Your task to perform on an android device: add a contact Image 0: 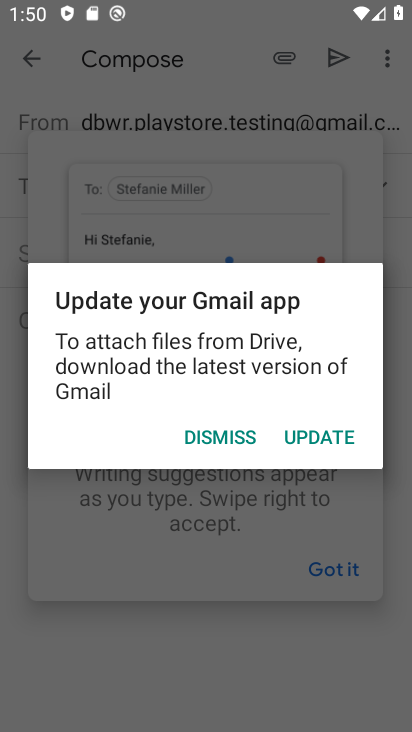
Step 0: press home button
Your task to perform on an android device: add a contact Image 1: 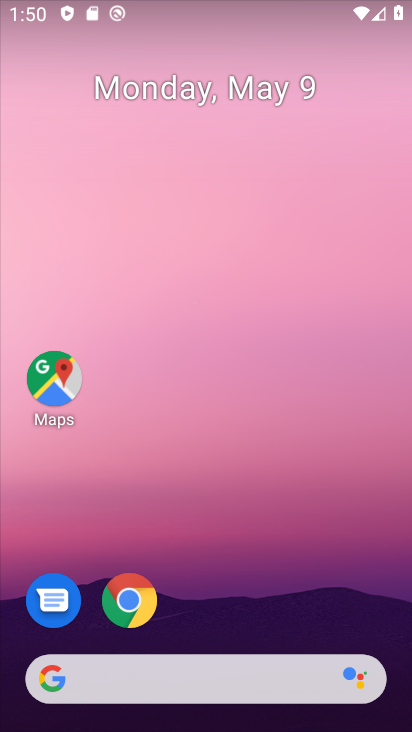
Step 1: drag from (254, 624) to (271, 90)
Your task to perform on an android device: add a contact Image 2: 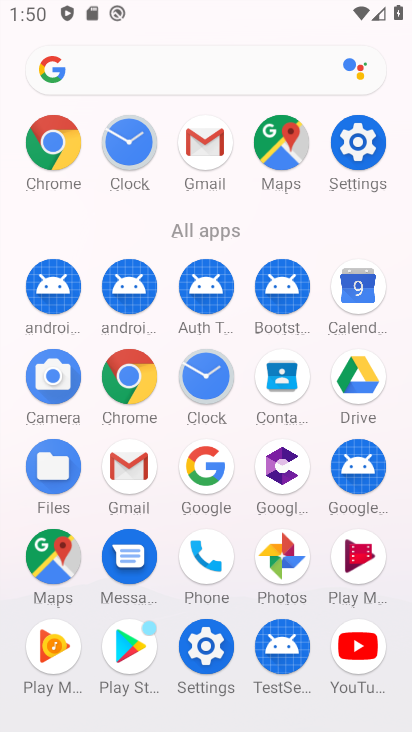
Step 2: click (282, 374)
Your task to perform on an android device: add a contact Image 3: 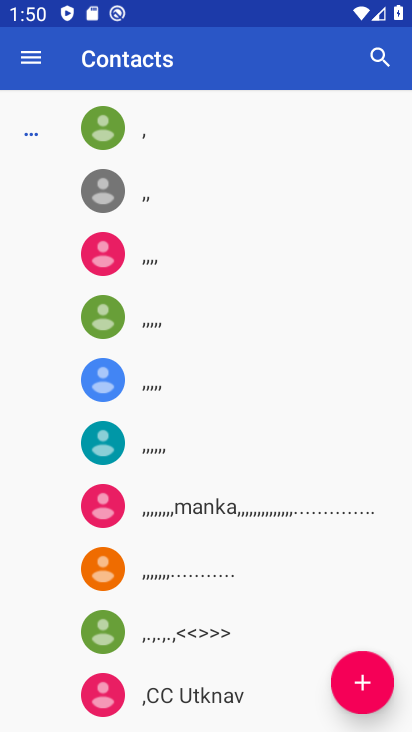
Step 3: click (357, 697)
Your task to perform on an android device: add a contact Image 4: 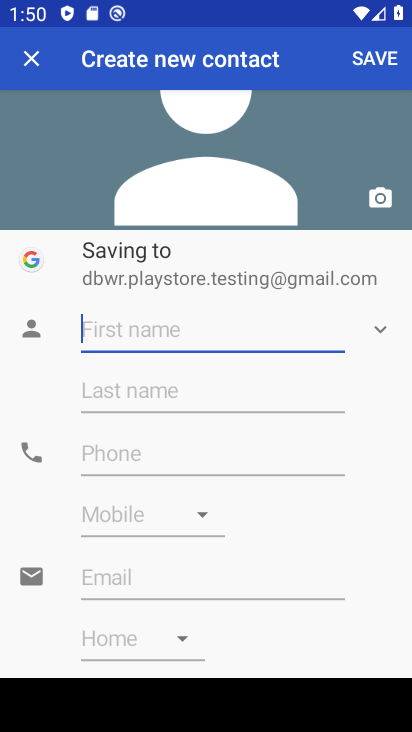
Step 4: type "mnjknmjiokkjih"
Your task to perform on an android device: add a contact Image 5: 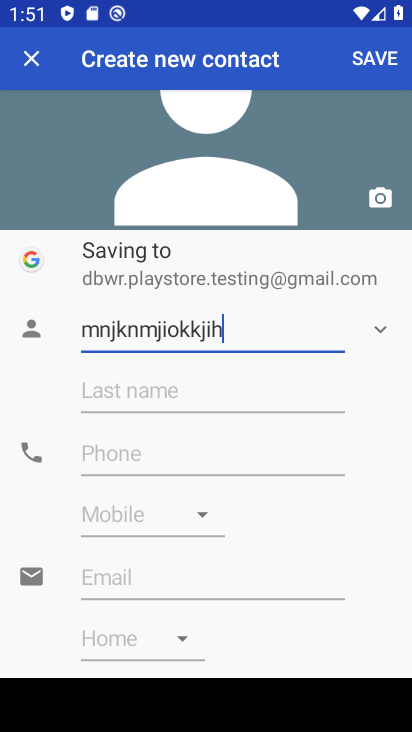
Step 5: click (130, 454)
Your task to perform on an android device: add a contact Image 6: 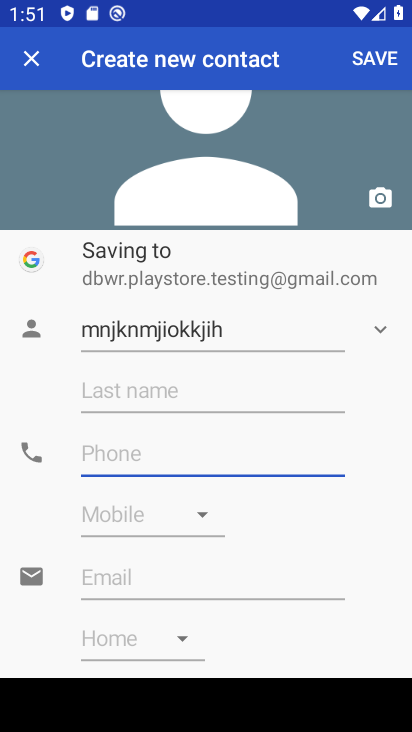
Step 6: type "67678899989"
Your task to perform on an android device: add a contact Image 7: 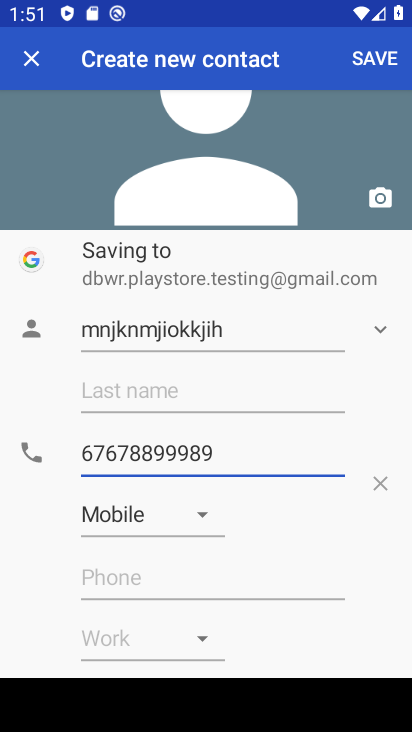
Step 7: click (375, 49)
Your task to perform on an android device: add a contact Image 8: 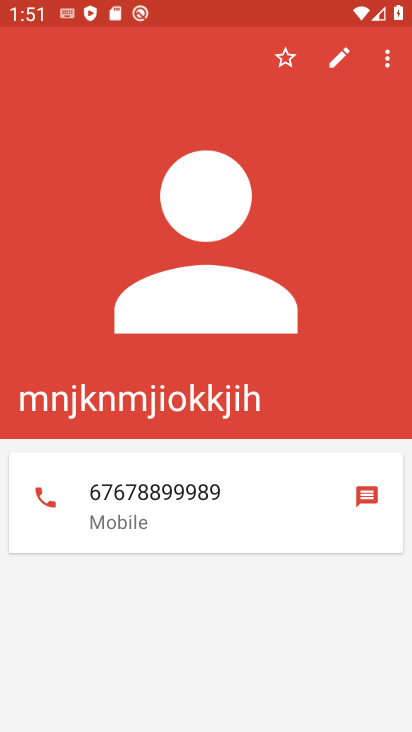
Step 8: task complete